Your task to perform on an android device: Go to Maps Image 0: 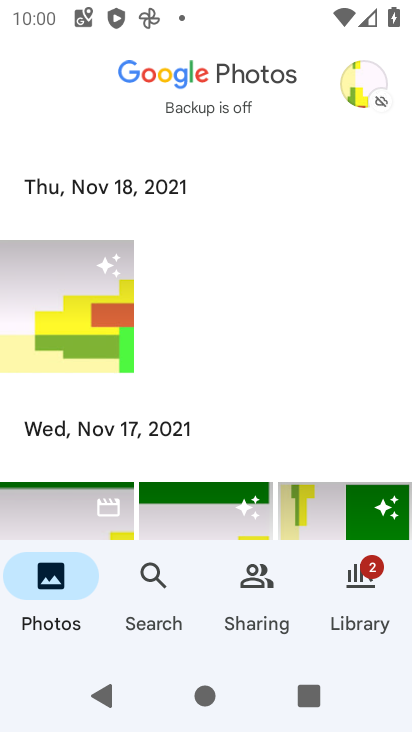
Step 0: press home button
Your task to perform on an android device: Go to Maps Image 1: 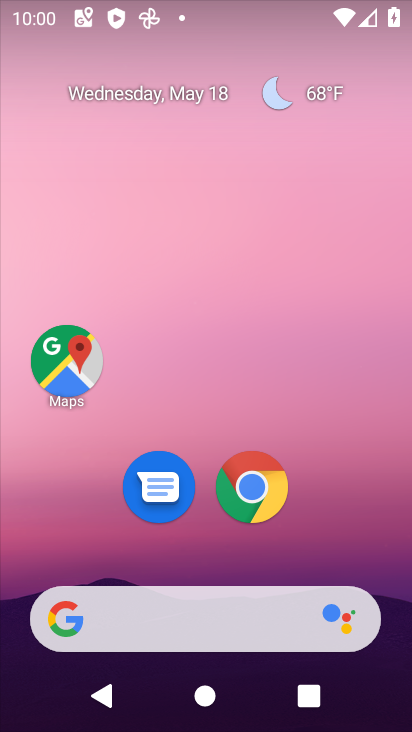
Step 1: drag from (350, 516) to (284, 133)
Your task to perform on an android device: Go to Maps Image 2: 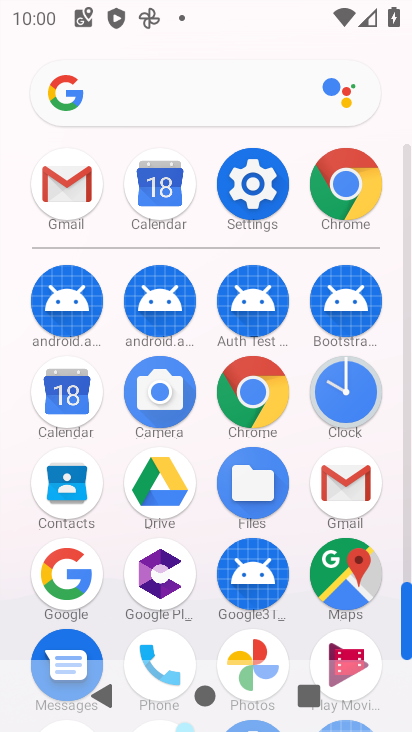
Step 2: click (350, 563)
Your task to perform on an android device: Go to Maps Image 3: 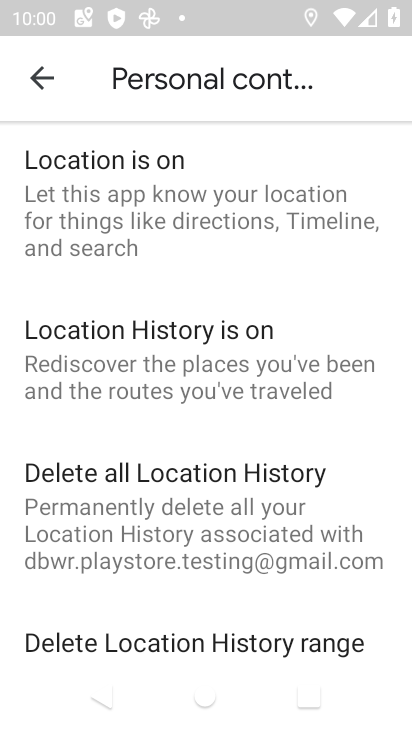
Step 3: click (38, 95)
Your task to perform on an android device: Go to Maps Image 4: 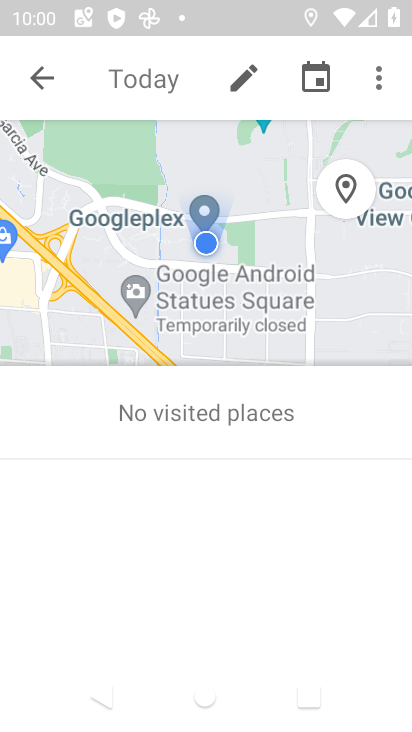
Step 4: click (42, 89)
Your task to perform on an android device: Go to Maps Image 5: 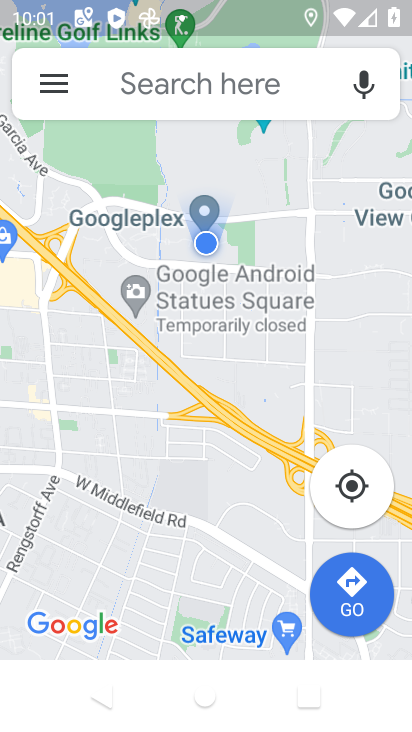
Step 5: task complete